Your task to perform on an android device: What are the new products by Samsung? Image 0: 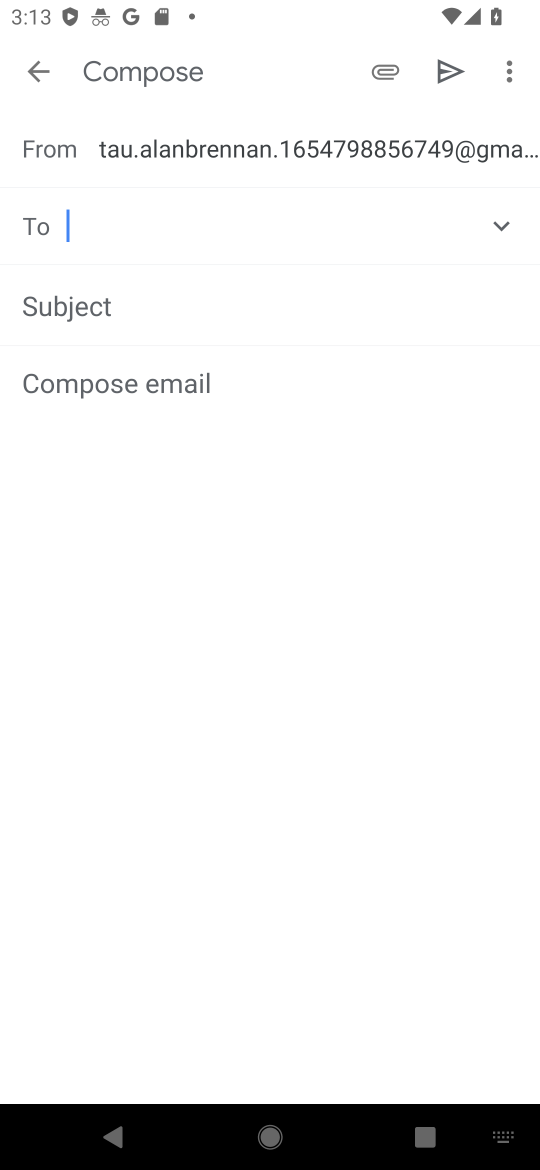
Step 0: press home button
Your task to perform on an android device: What are the new products by Samsung? Image 1: 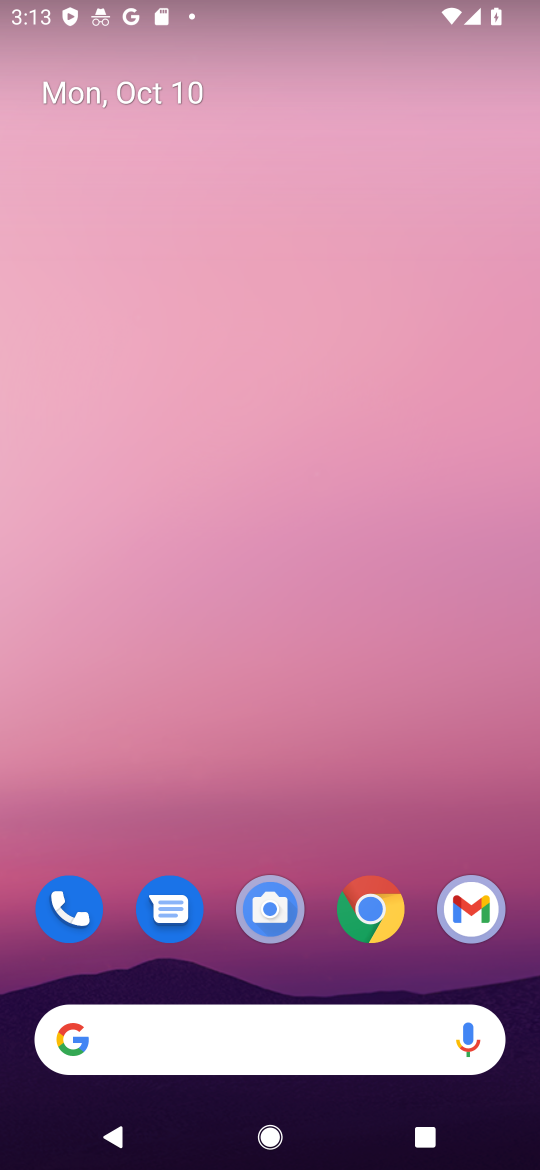
Step 1: click (365, 913)
Your task to perform on an android device: What are the new products by Samsung? Image 2: 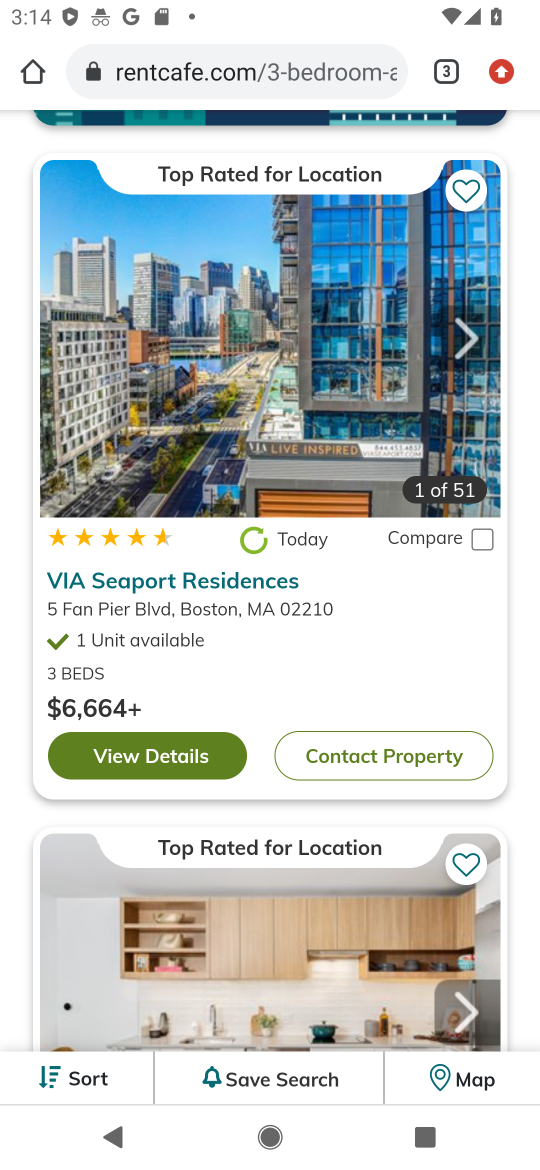
Step 2: click (236, 46)
Your task to perform on an android device: What are the new products by Samsung? Image 3: 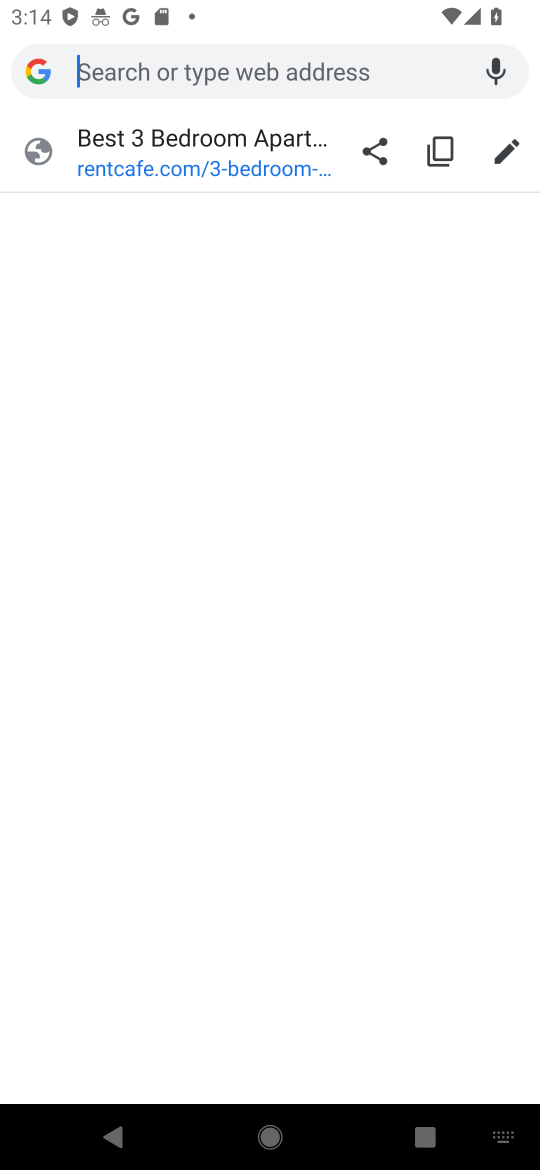
Step 3: type "new products by Samsung?"
Your task to perform on an android device: What are the new products by Samsung? Image 4: 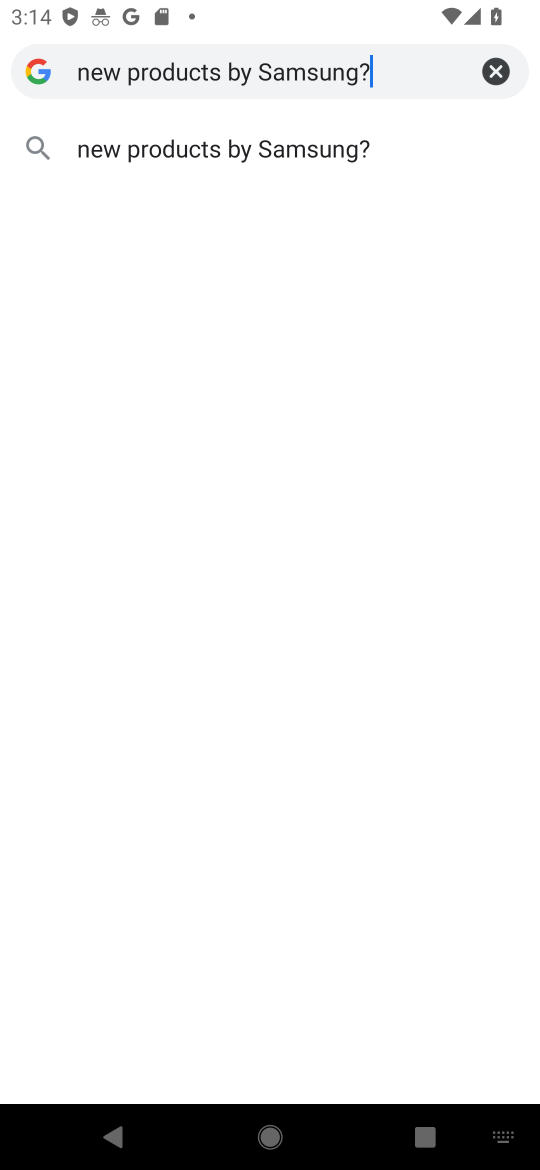
Step 4: click (157, 152)
Your task to perform on an android device: What are the new products by Samsung? Image 5: 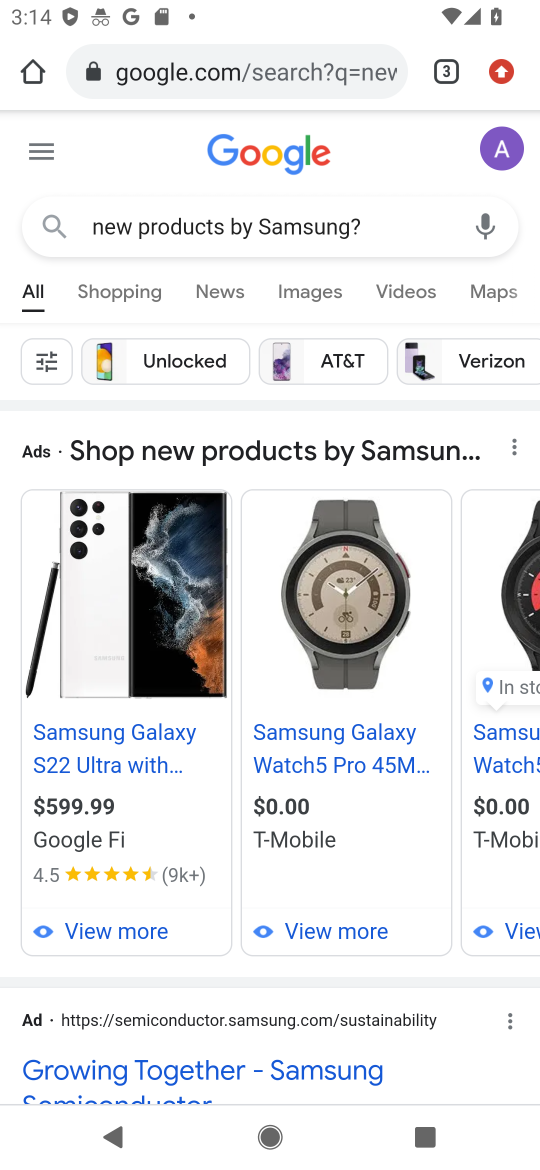
Step 5: drag from (247, 971) to (213, 382)
Your task to perform on an android device: What are the new products by Samsung? Image 6: 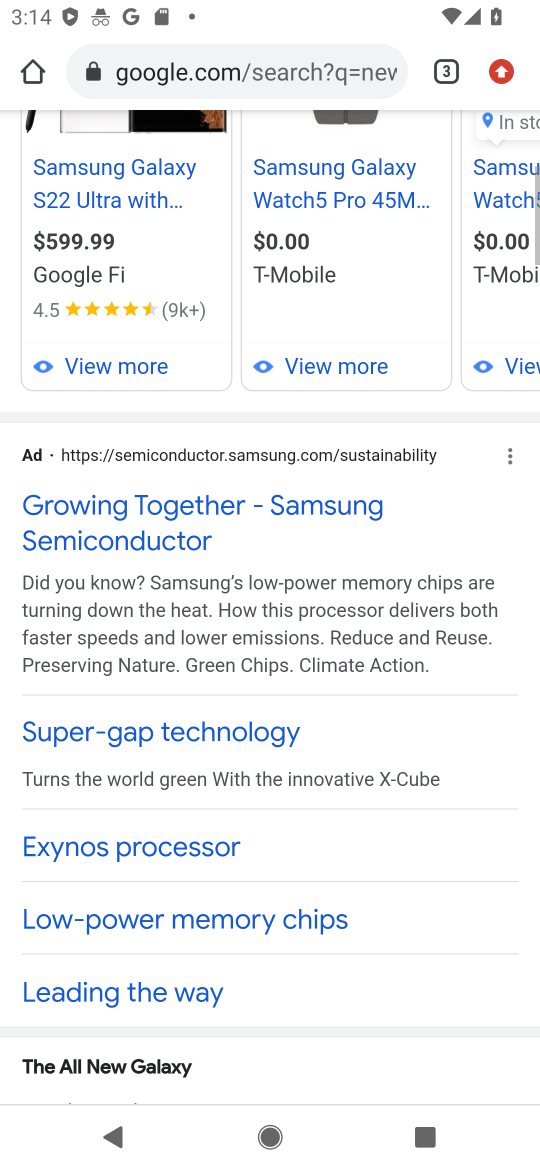
Step 6: click (213, 382)
Your task to perform on an android device: What are the new products by Samsung? Image 7: 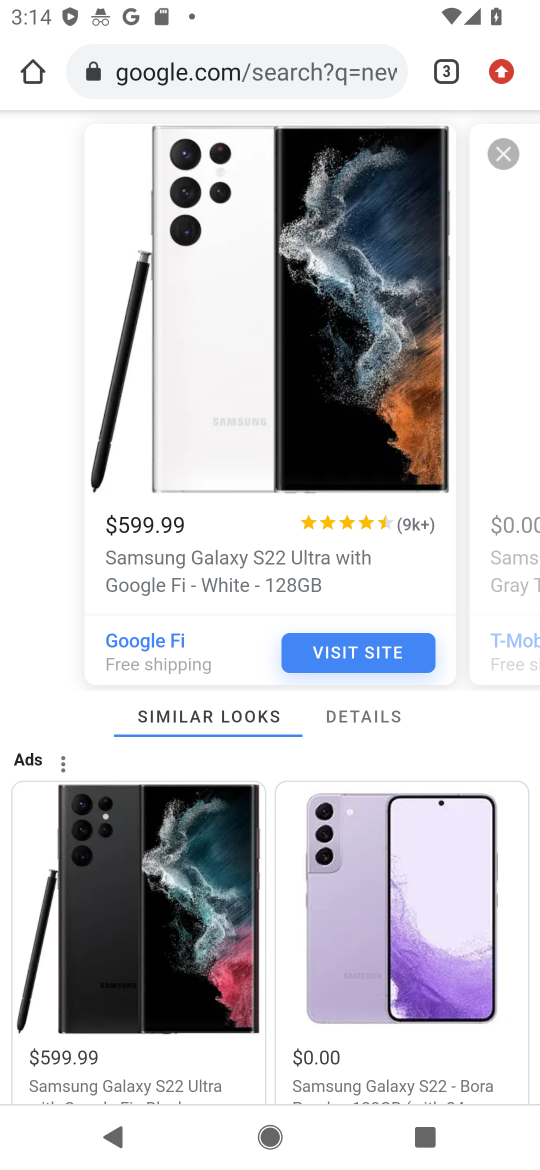
Step 7: task complete